Your task to perform on an android device: open sync settings in chrome Image 0: 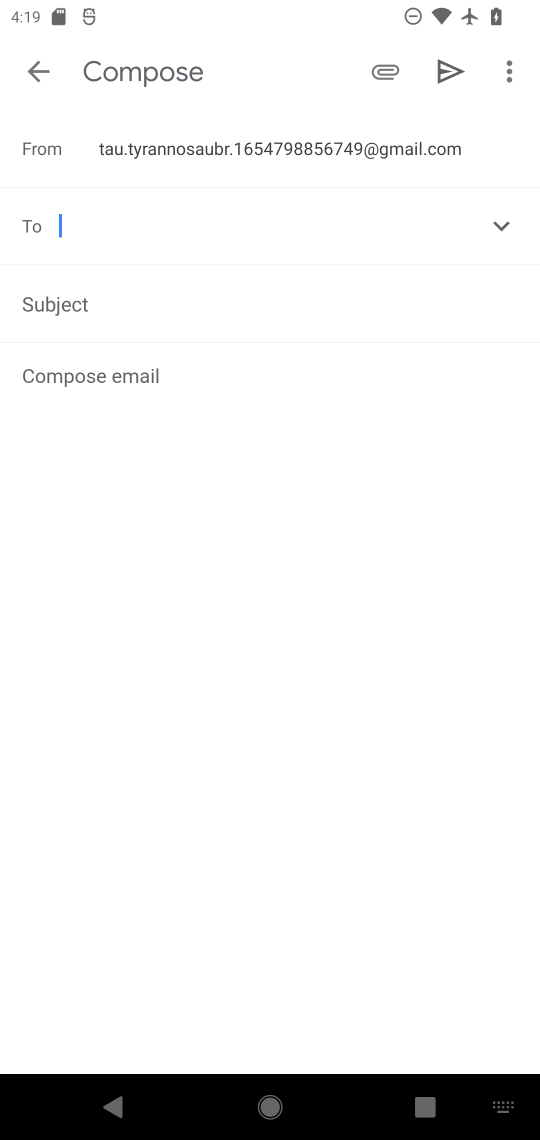
Step 0: press home button
Your task to perform on an android device: open sync settings in chrome Image 1: 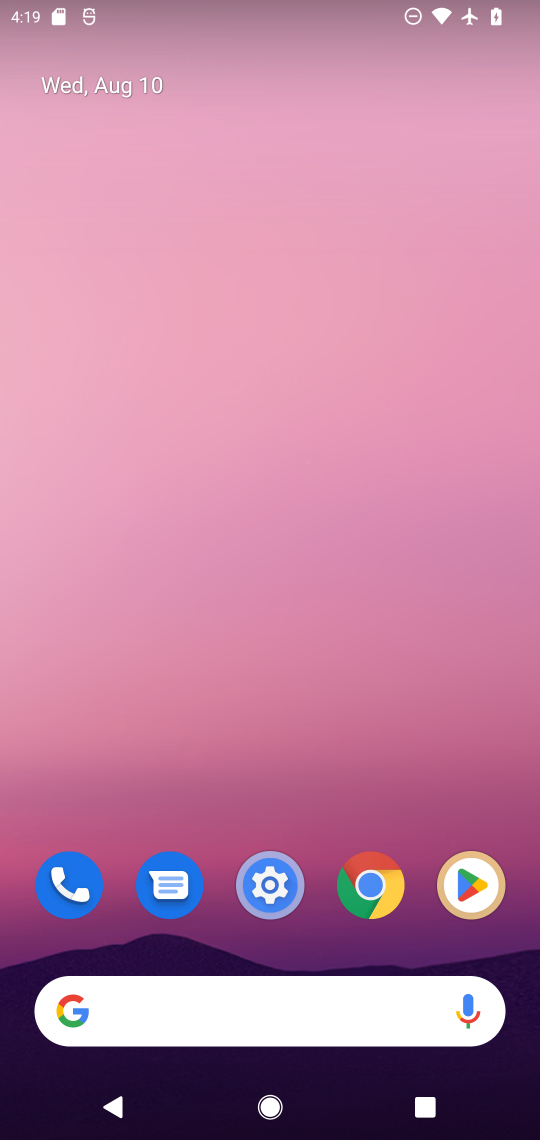
Step 1: click (374, 886)
Your task to perform on an android device: open sync settings in chrome Image 2: 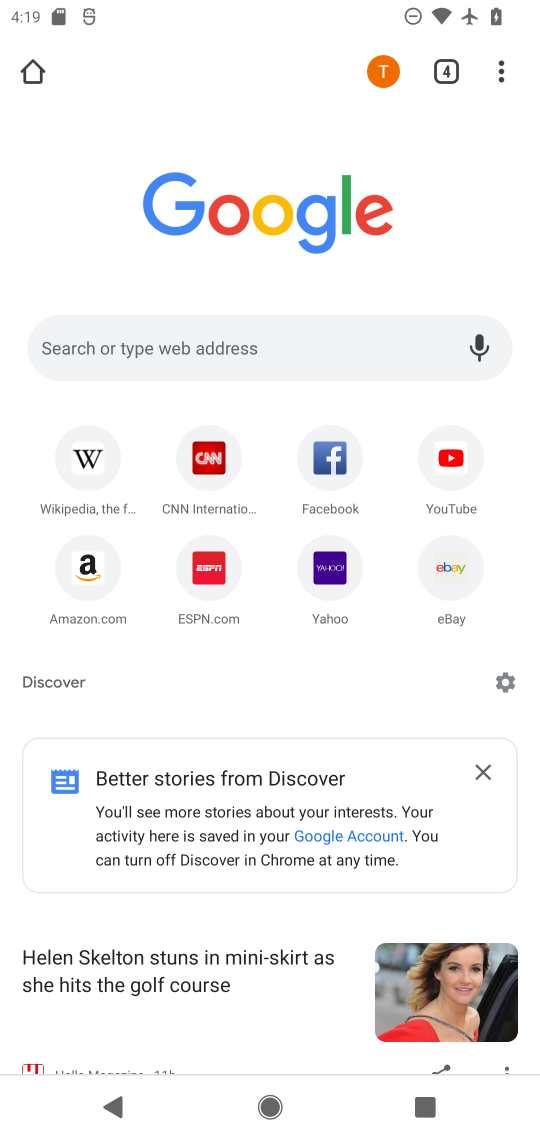
Step 2: click (501, 68)
Your task to perform on an android device: open sync settings in chrome Image 3: 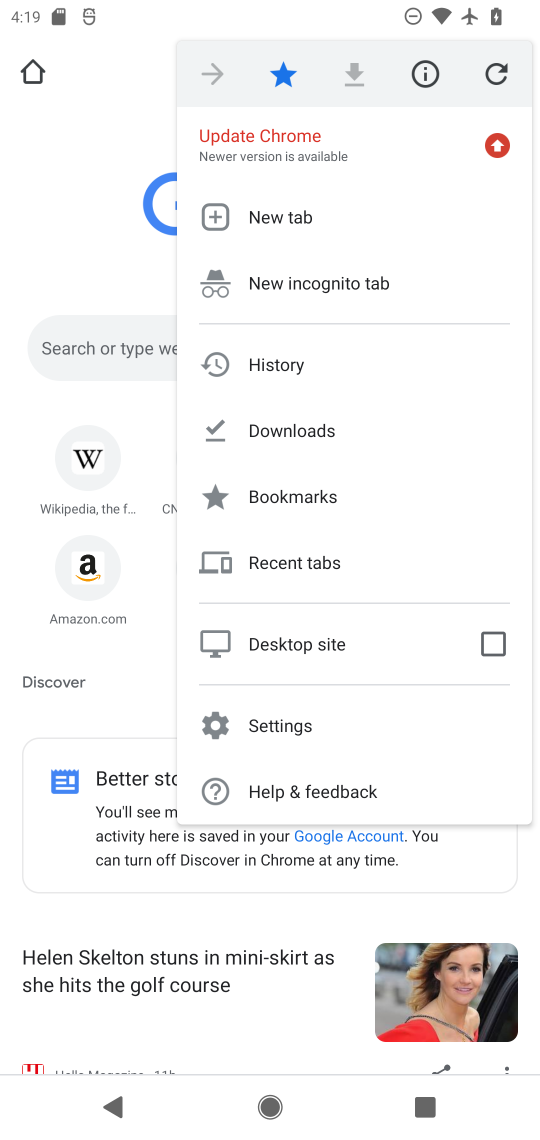
Step 3: click (298, 720)
Your task to perform on an android device: open sync settings in chrome Image 4: 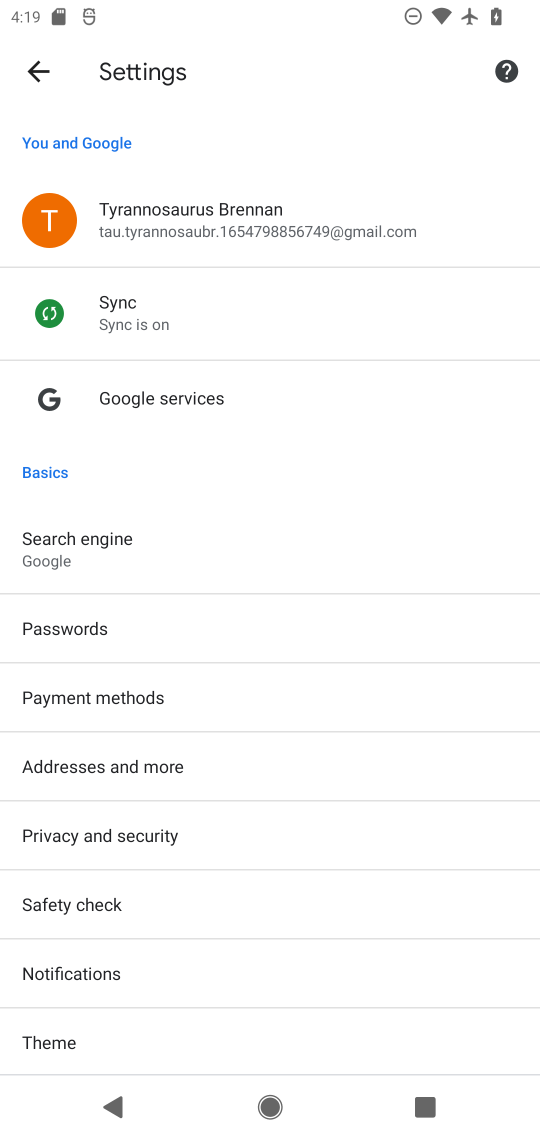
Step 4: click (109, 304)
Your task to perform on an android device: open sync settings in chrome Image 5: 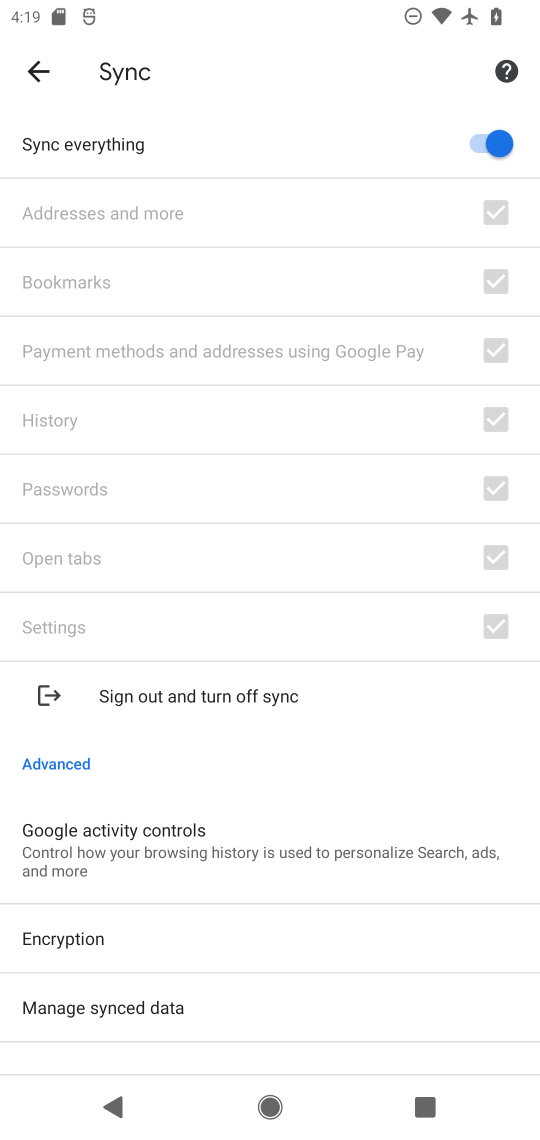
Step 5: task complete